Your task to perform on an android device: turn off data saver in the chrome app Image 0: 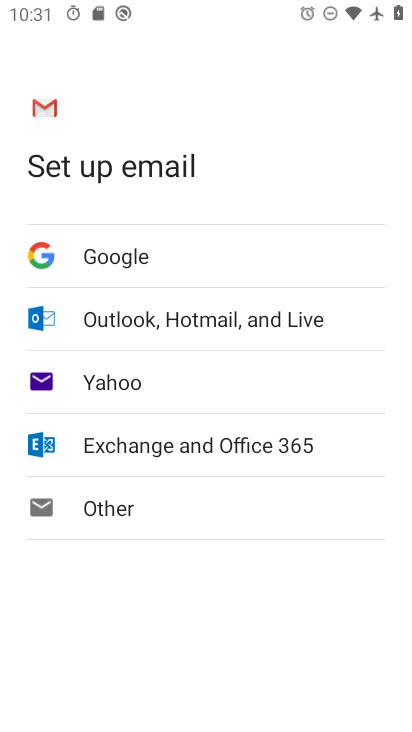
Step 0: press home button
Your task to perform on an android device: turn off data saver in the chrome app Image 1: 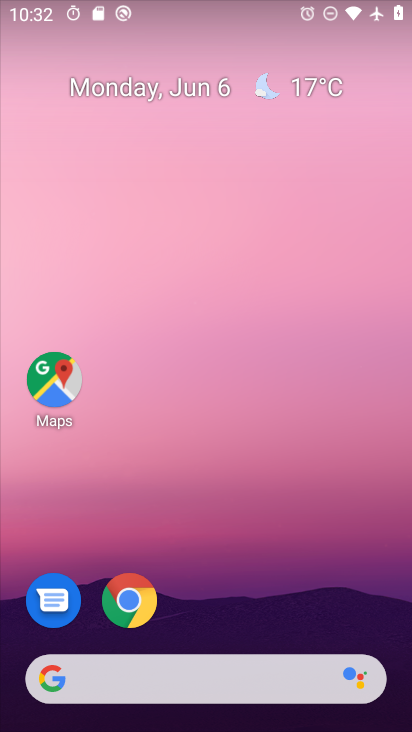
Step 1: click (146, 599)
Your task to perform on an android device: turn off data saver in the chrome app Image 2: 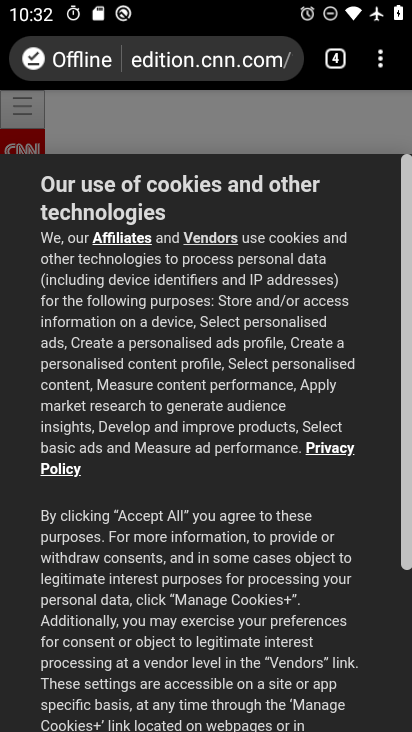
Step 2: click (380, 67)
Your task to perform on an android device: turn off data saver in the chrome app Image 3: 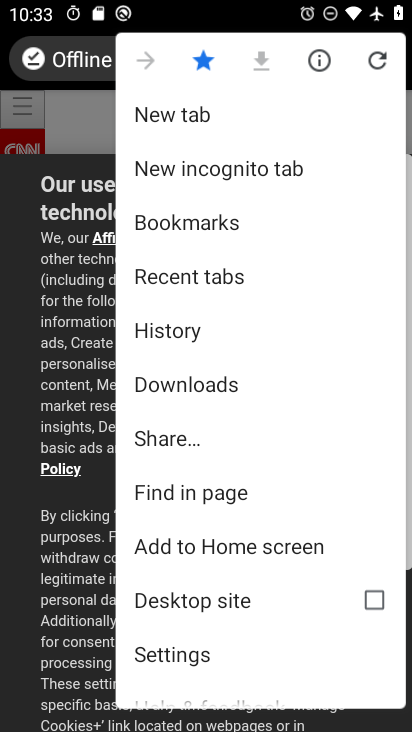
Step 3: click (259, 663)
Your task to perform on an android device: turn off data saver in the chrome app Image 4: 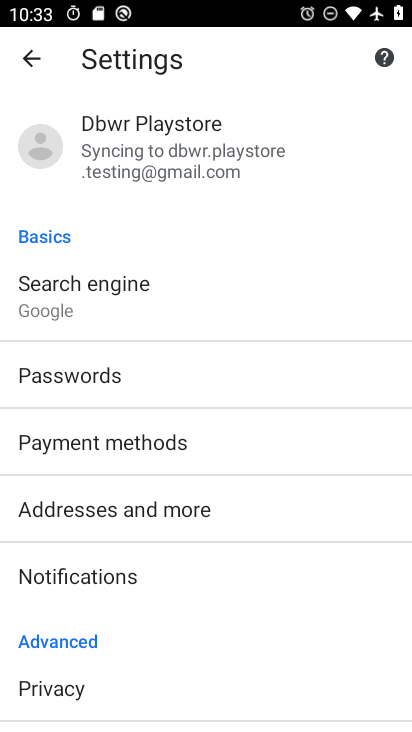
Step 4: drag from (199, 594) to (229, 122)
Your task to perform on an android device: turn off data saver in the chrome app Image 5: 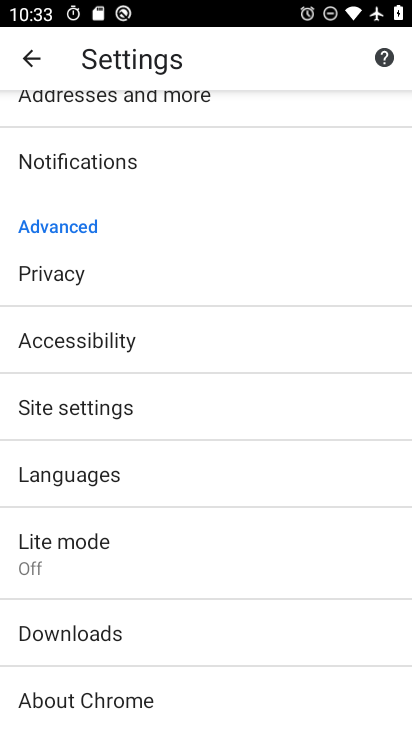
Step 5: click (191, 560)
Your task to perform on an android device: turn off data saver in the chrome app Image 6: 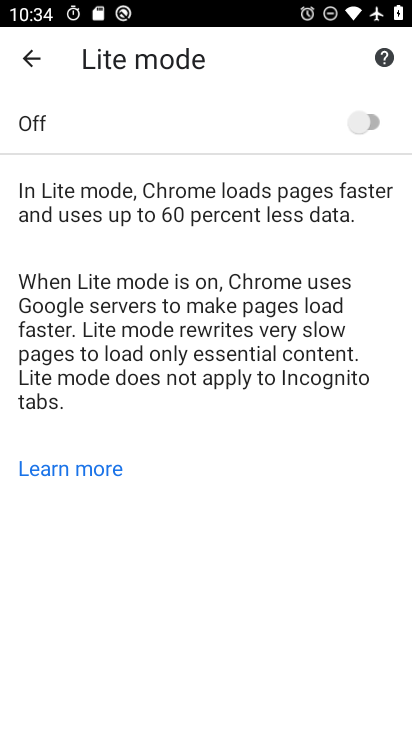
Step 6: task complete